Your task to perform on an android device: open the mobile data screen to see how much data has been used Image 0: 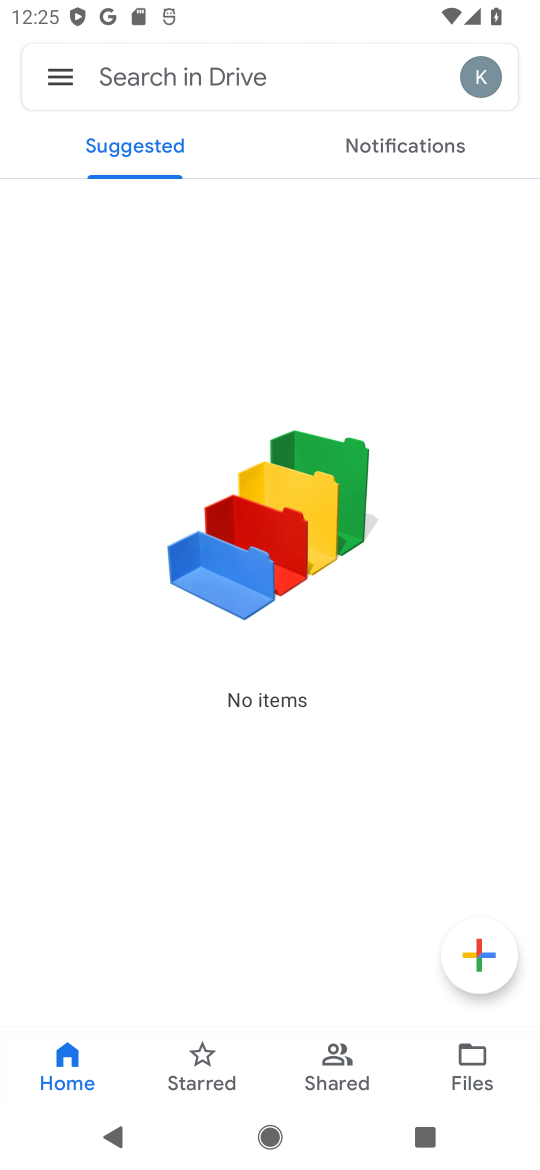
Step 0: press home button
Your task to perform on an android device: open the mobile data screen to see how much data has been used Image 1: 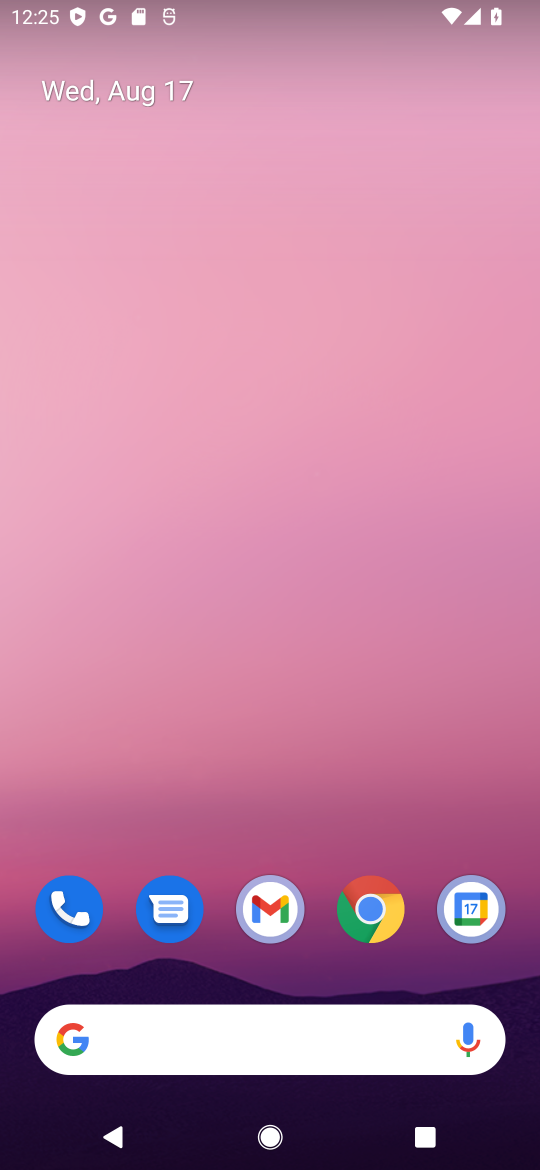
Step 1: drag from (309, 806) to (307, 262)
Your task to perform on an android device: open the mobile data screen to see how much data has been used Image 2: 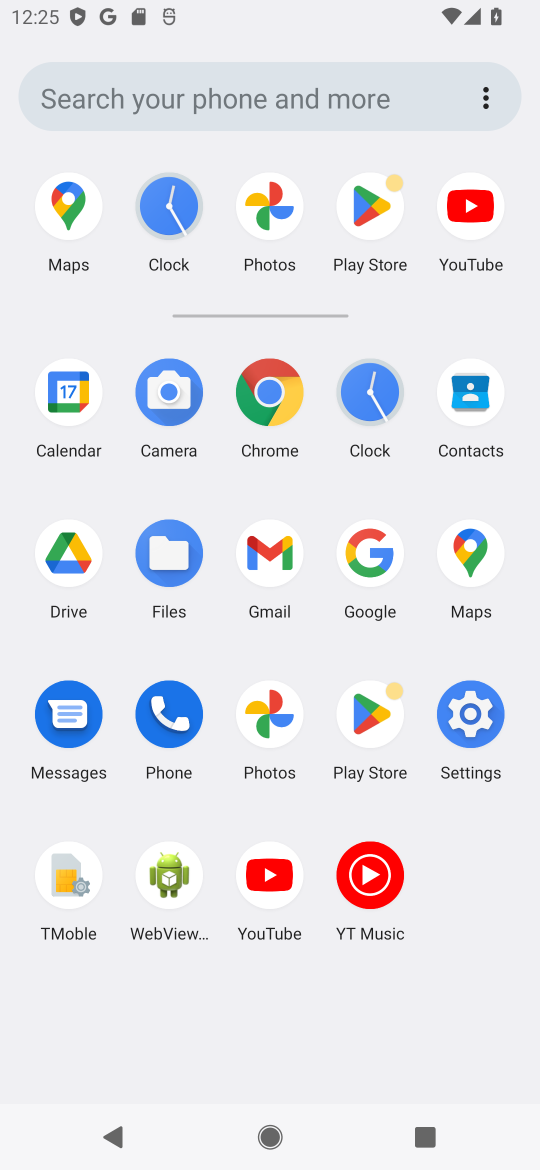
Step 2: click (468, 711)
Your task to perform on an android device: open the mobile data screen to see how much data has been used Image 3: 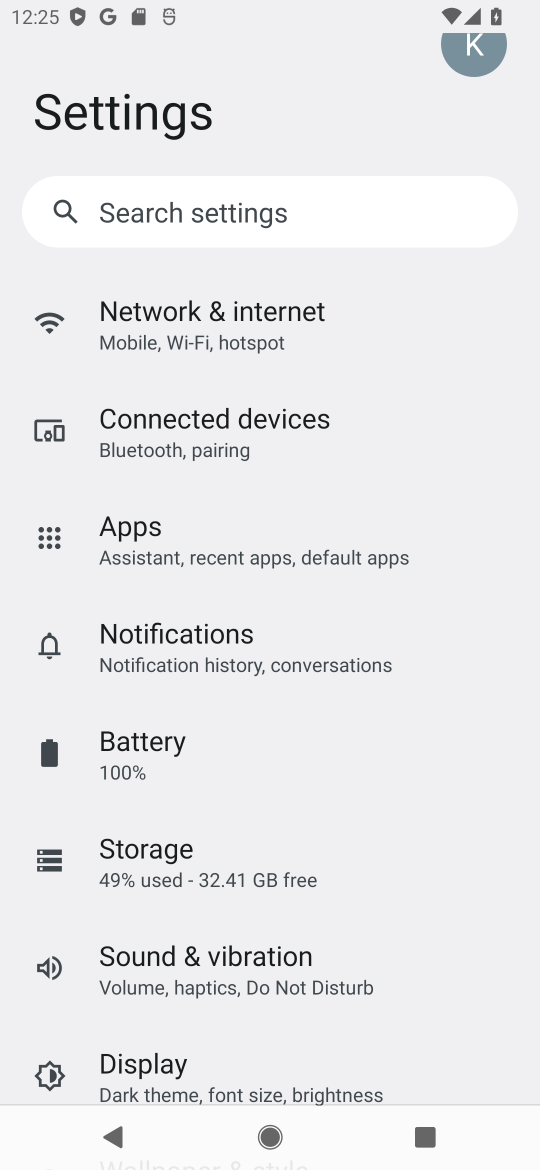
Step 3: click (240, 307)
Your task to perform on an android device: open the mobile data screen to see how much data has been used Image 4: 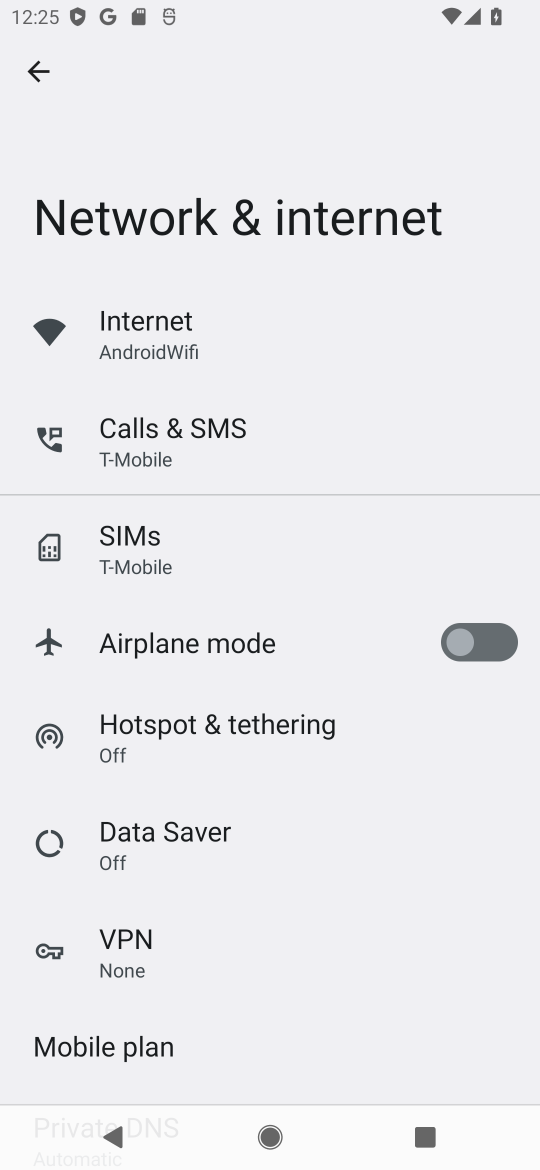
Step 4: click (127, 313)
Your task to perform on an android device: open the mobile data screen to see how much data has been used Image 5: 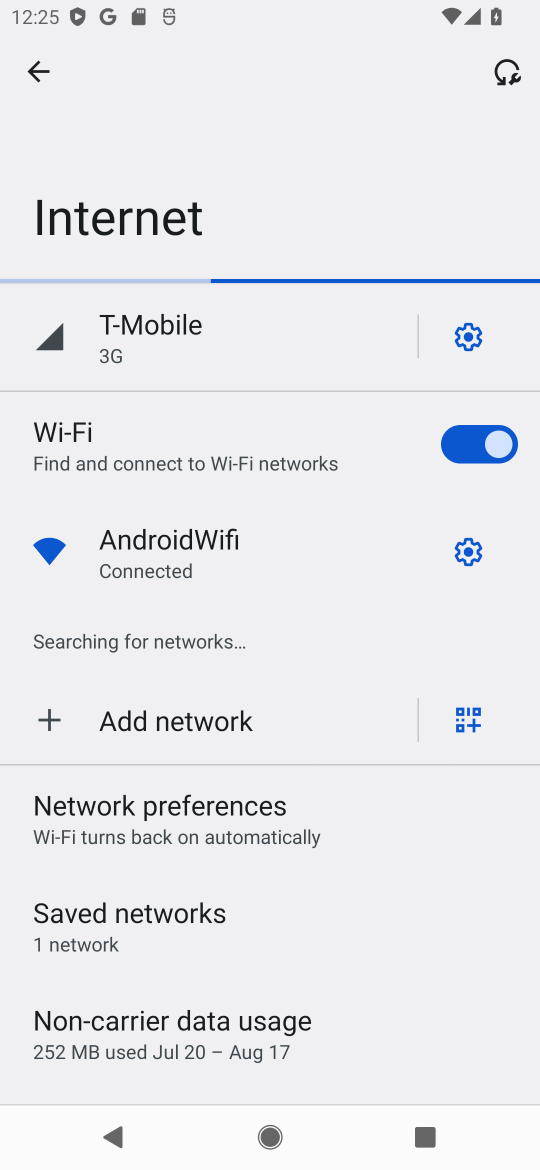
Step 5: click (177, 1010)
Your task to perform on an android device: open the mobile data screen to see how much data has been used Image 6: 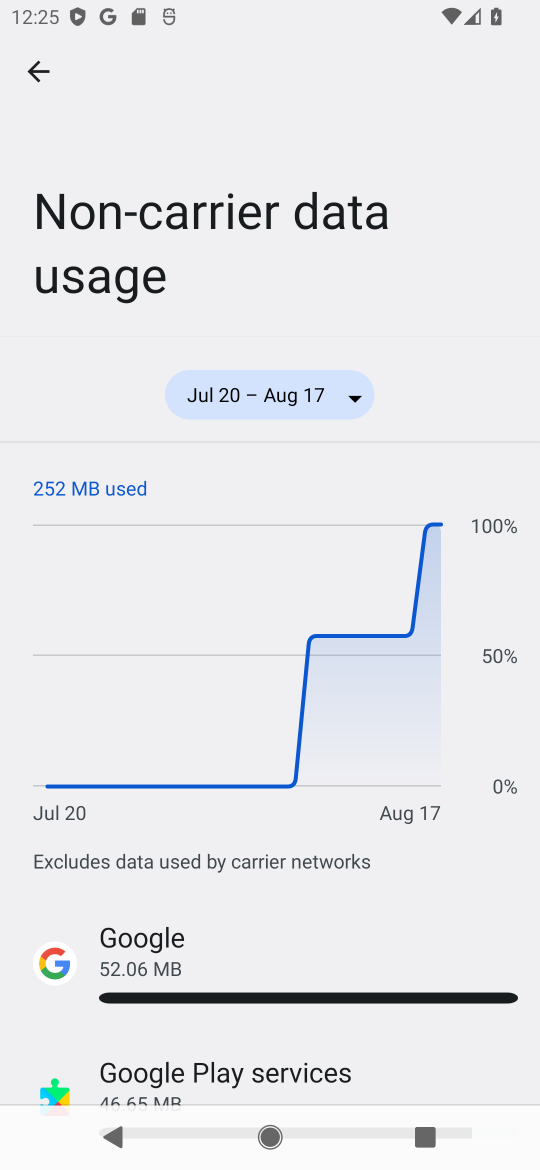
Step 6: task complete